Your task to perform on an android device: View the shopping cart on amazon. Image 0: 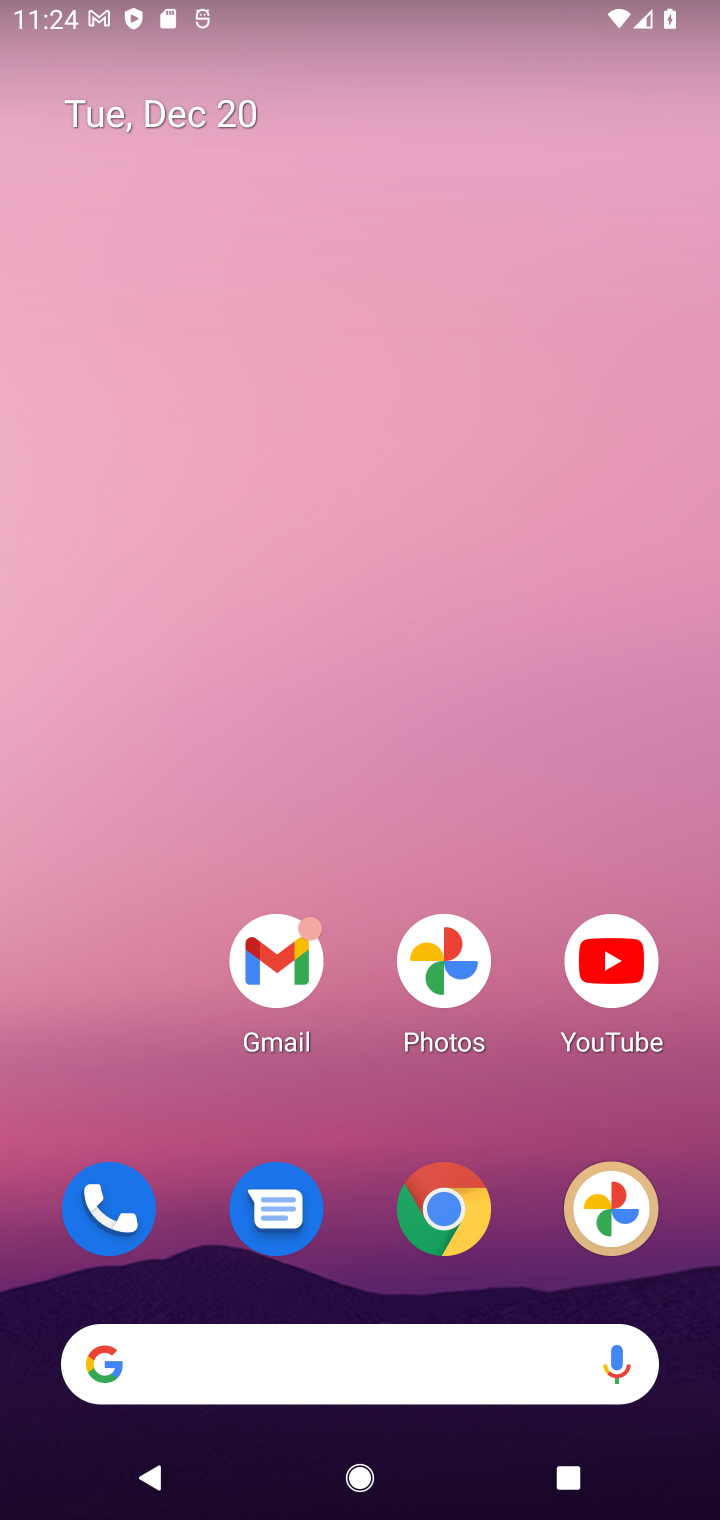
Step 0: click (444, 1223)
Your task to perform on an android device: View the shopping cart on amazon. Image 1: 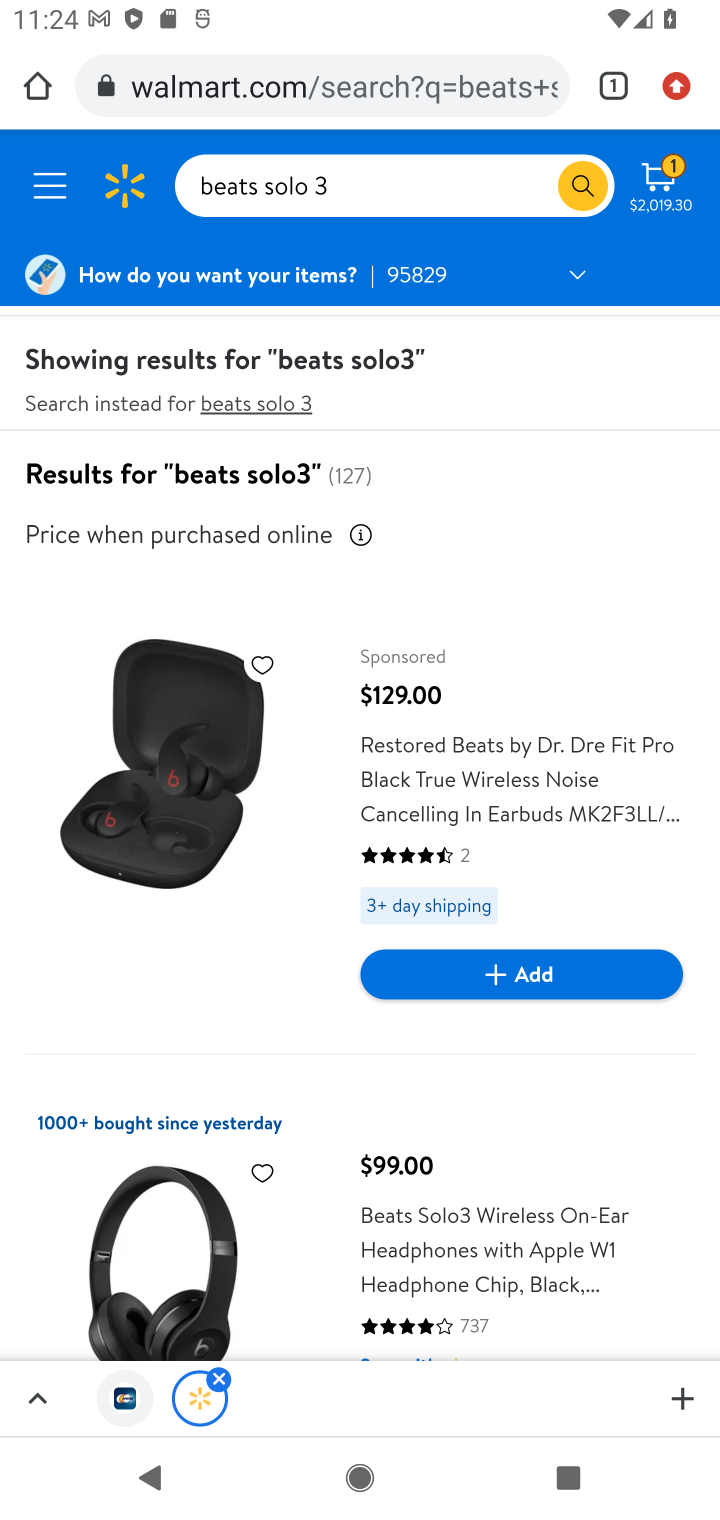
Step 1: click (251, 88)
Your task to perform on an android device: View the shopping cart on amazon. Image 2: 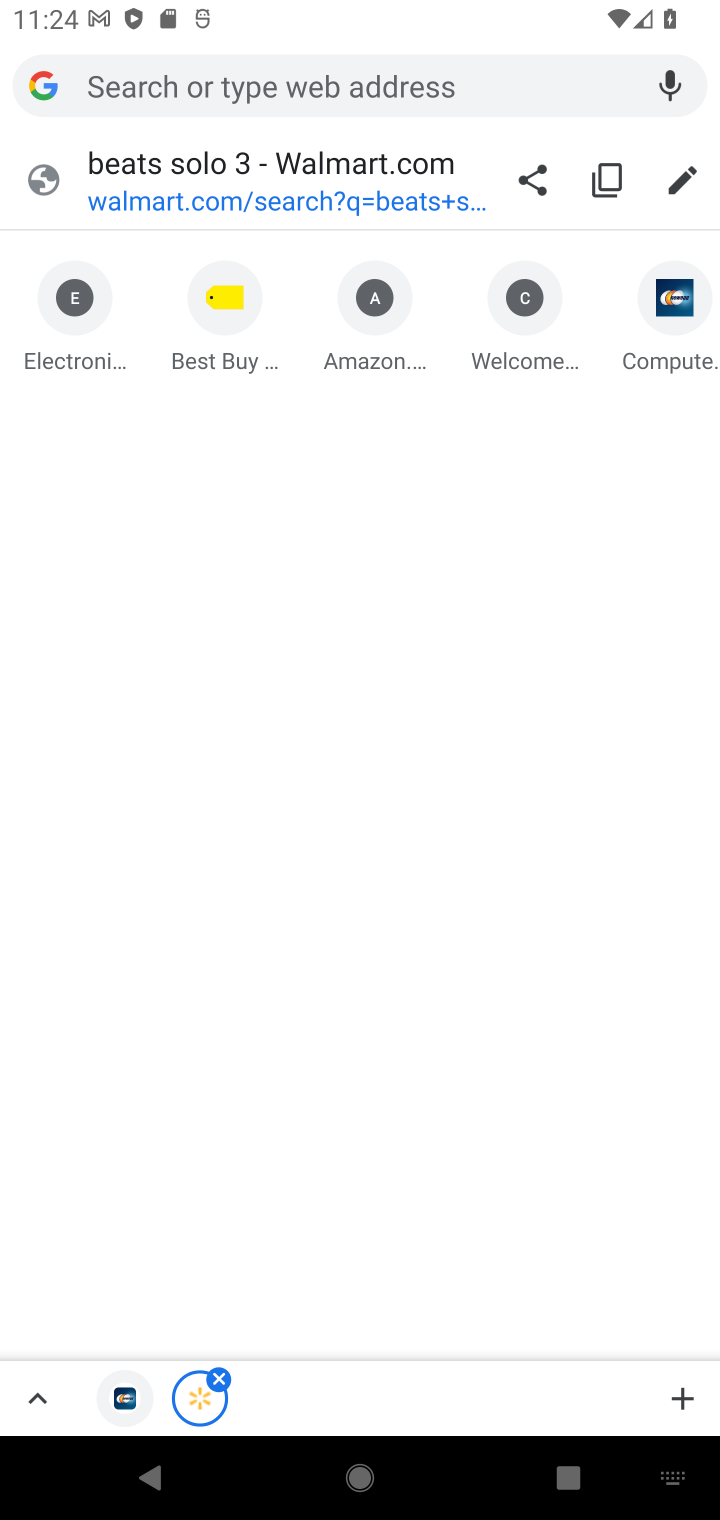
Step 2: click (366, 315)
Your task to perform on an android device: View the shopping cart on amazon. Image 3: 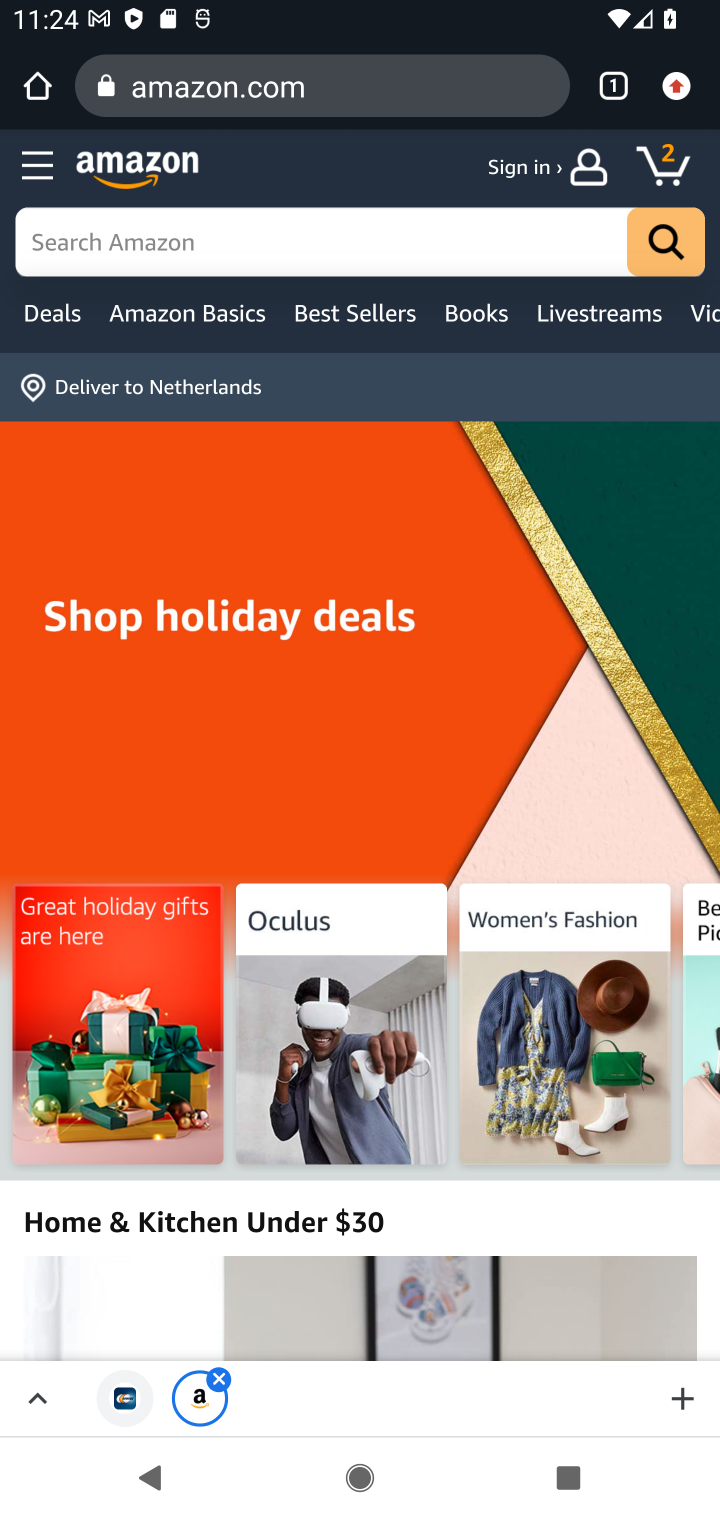
Step 3: click (667, 168)
Your task to perform on an android device: View the shopping cart on amazon. Image 4: 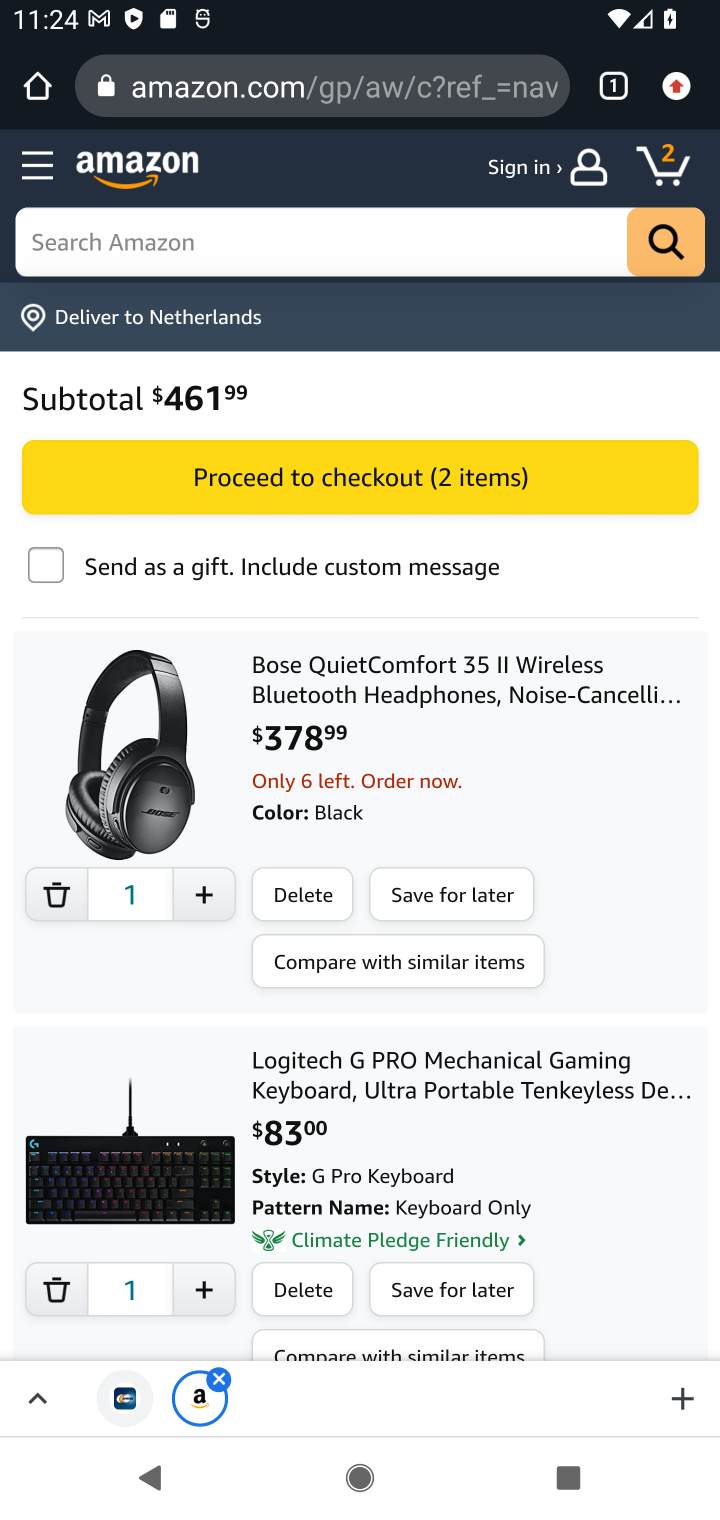
Step 4: task complete